Your task to perform on an android device: turn on the 12-hour format for clock Image 0: 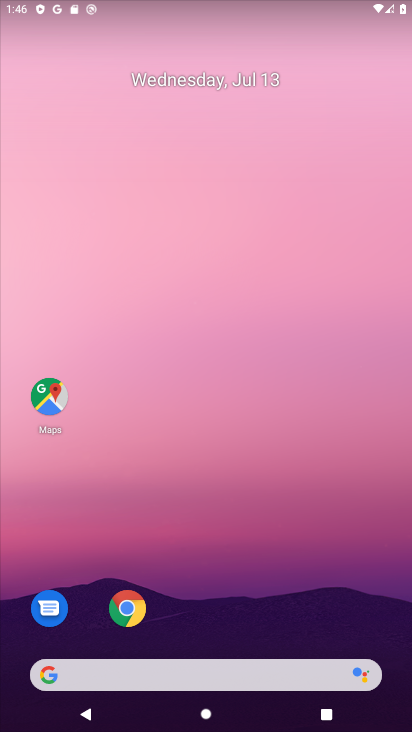
Step 0: drag from (189, 602) to (147, 61)
Your task to perform on an android device: turn on the 12-hour format for clock Image 1: 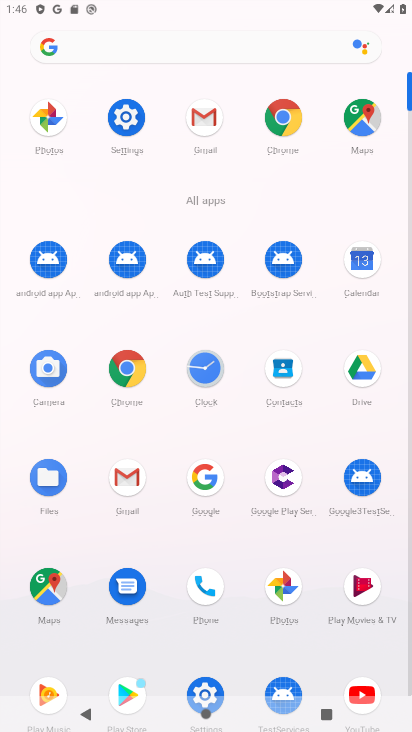
Step 1: click (212, 363)
Your task to perform on an android device: turn on the 12-hour format for clock Image 2: 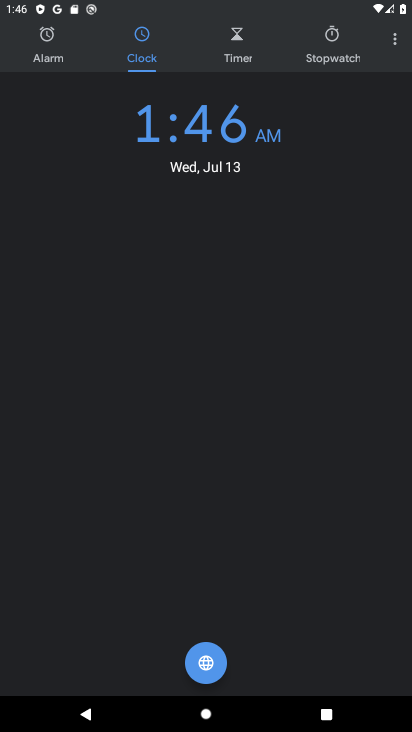
Step 2: click (399, 48)
Your task to perform on an android device: turn on the 12-hour format for clock Image 3: 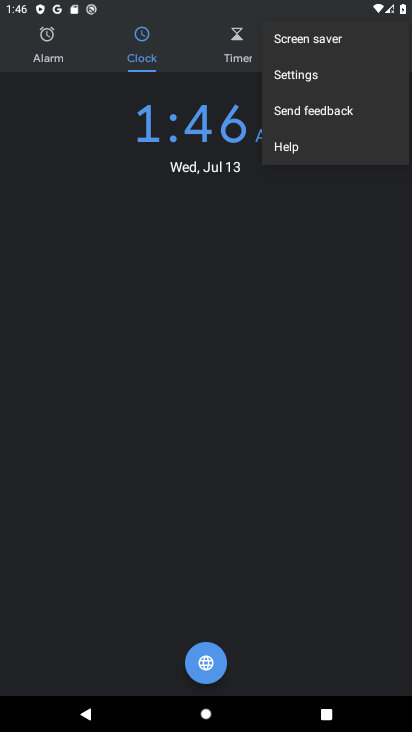
Step 3: click (330, 84)
Your task to perform on an android device: turn on the 12-hour format for clock Image 4: 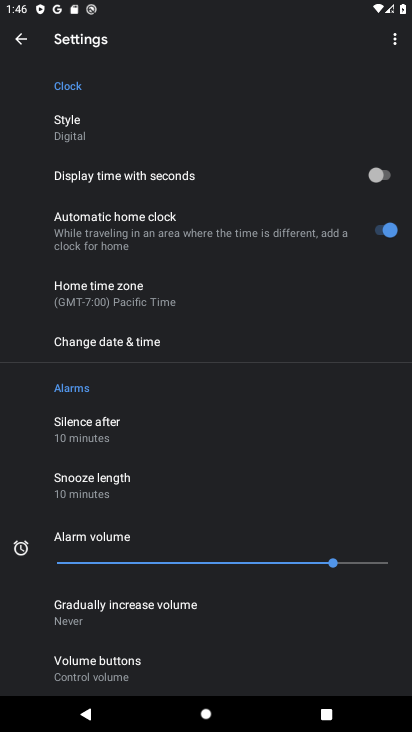
Step 4: task complete